Your task to perform on an android device: Find coffee shops on Maps Image 0: 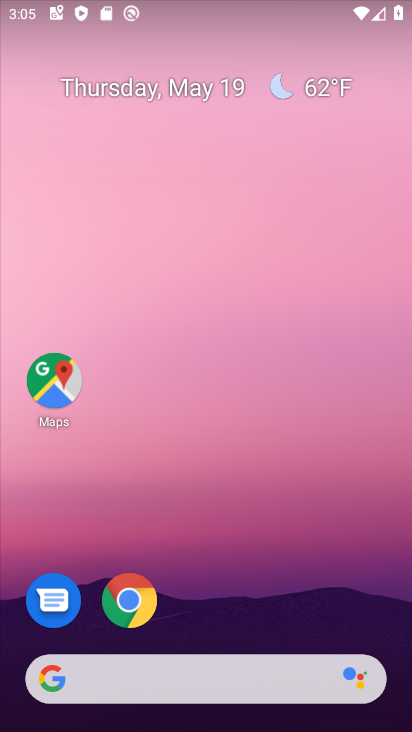
Step 0: press home button
Your task to perform on an android device: Find coffee shops on Maps Image 1: 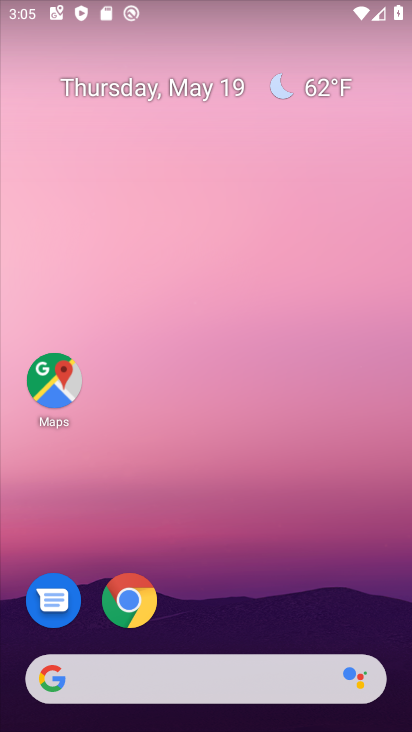
Step 1: click (51, 380)
Your task to perform on an android device: Find coffee shops on Maps Image 2: 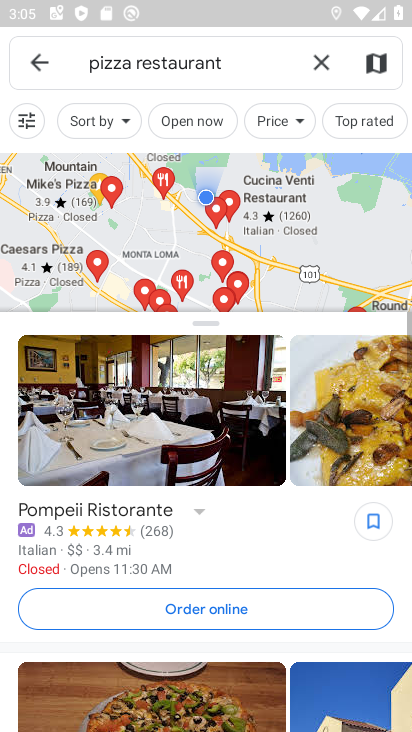
Step 2: click (325, 65)
Your task to perform on an android device: Find coffee shops on Maps Image 3: 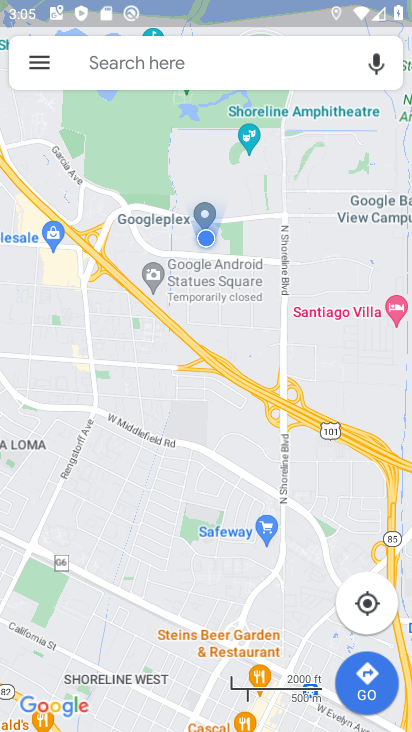
Step 3: click (164, 64)
Your task to perform on an android device: Find coffee shops on Maps Image 4: 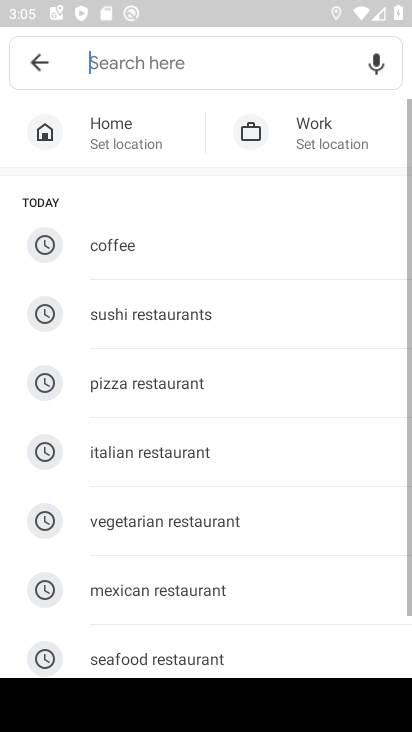
Step 4: click (104, 250)
Your task to perform on an android device: Find coffee shops on Maps Image 5: 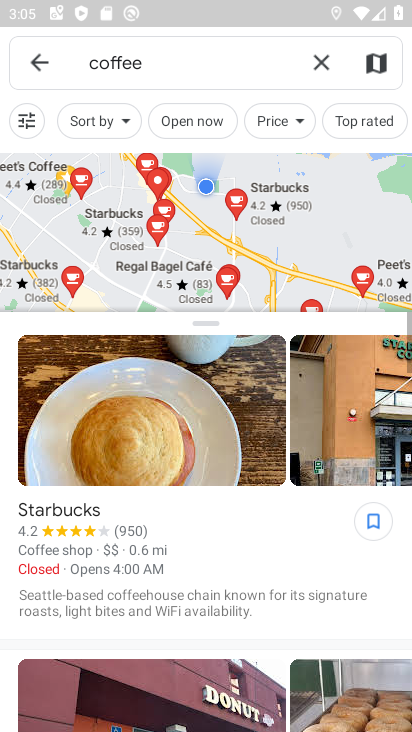
Step 5: task complete